Your task to perform on an android device: change notification settings in the gmail app Image 0: 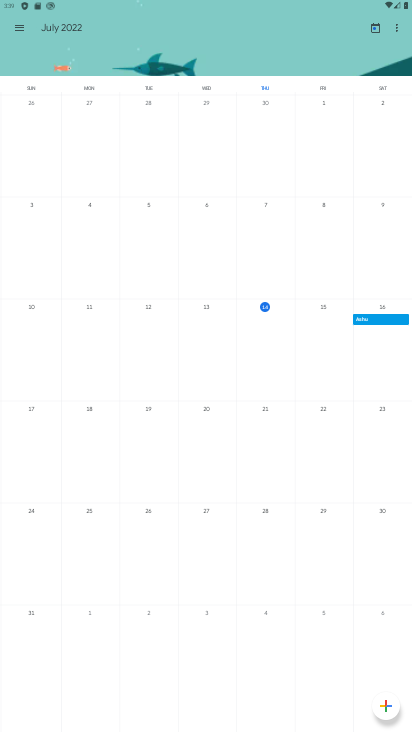
Step 0: press back button
Your task to perform on an android device: change notification settings in the gmail app Image 1: 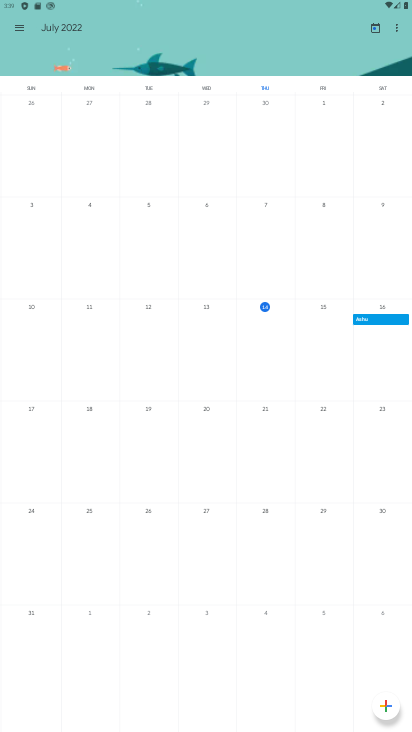
Step 1: press back button
Your task to perform on an android device: change notification settings in the gmail app Image 2: 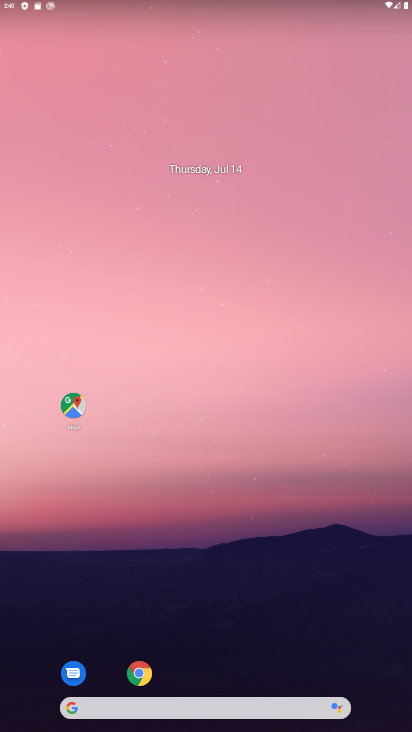
Step 2: drag from (225, 638) to (35, 30)
Your task to perform on an android device: change notification settings in the gmail app Image 3: 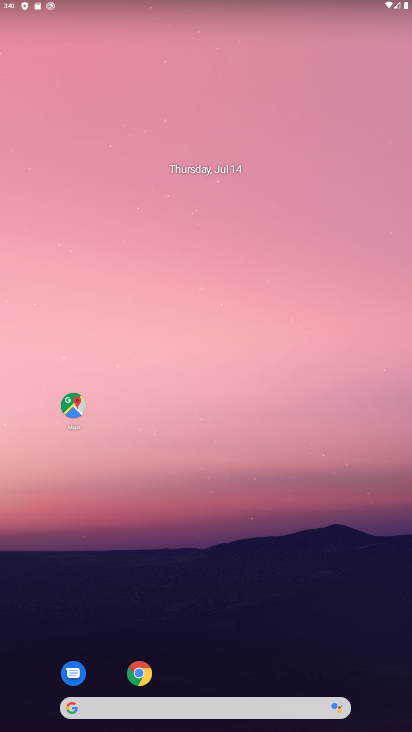
Step 3: drag from (173, 435) to (132, 22)
Your task to perform on an android device: change notification settings in the gmail app Image 4: 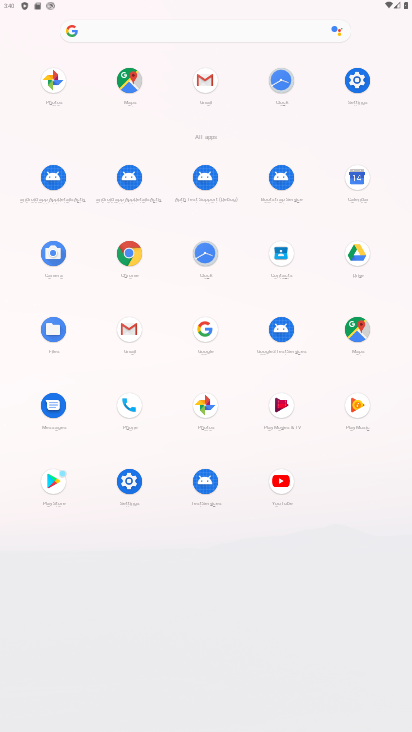
Step 4: click (133, 330)
Your task to perform on an android device: change notification settings in the gmail app Image 5: 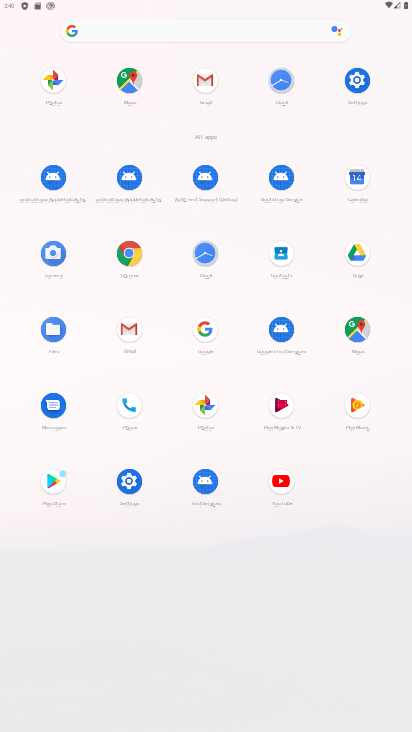
Step 5: click (132, 331)
Your task to perform on an android device: change notification settings in the gmail app Image 6: 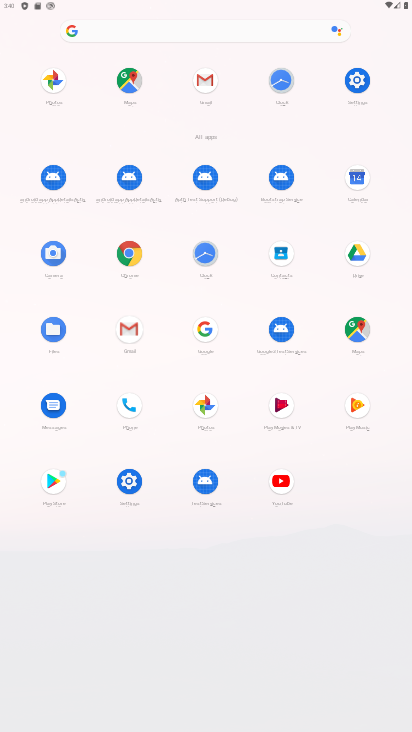
Step 6: click (135, 334)
Your task to perform on an android device: change notification settings in the gmail app Image 7: 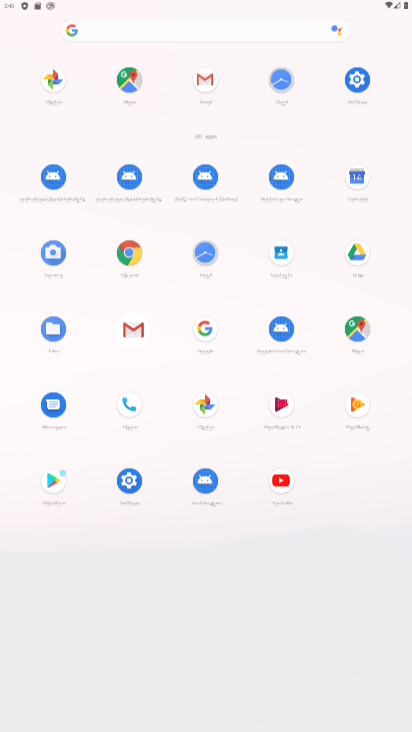
Step 7: click (127, 316)
Your task to perform on an android device: change notification settings in the gmail app Image 8: 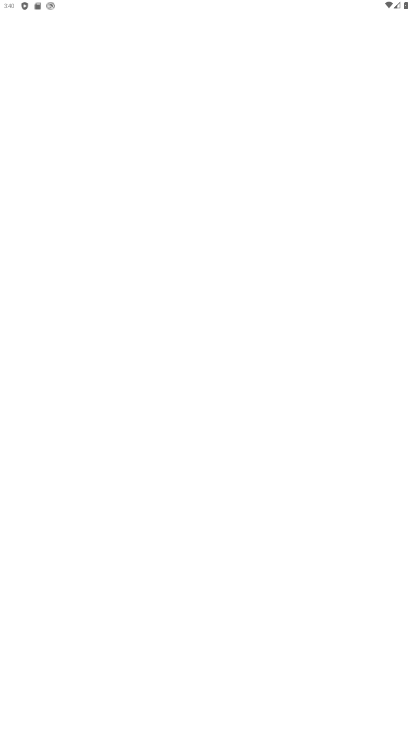
Step 8: click (127, 319)
Your task to perform on an android device: change notification settings in the gmail app Image 9: 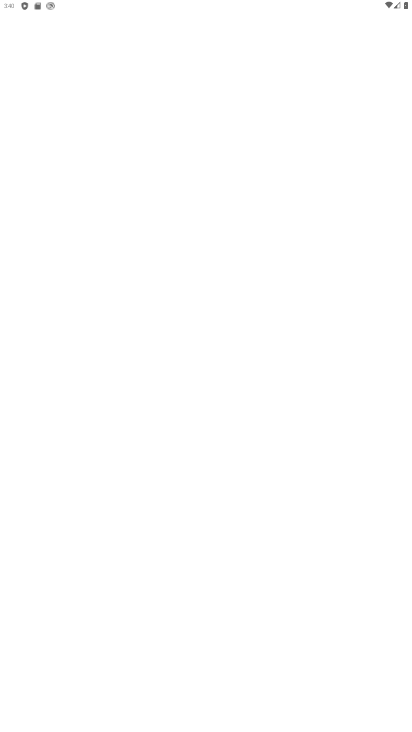
Step 9: click (127, 325)
Your task to perform on an android device: change notification settings in the gmail app Image 10: 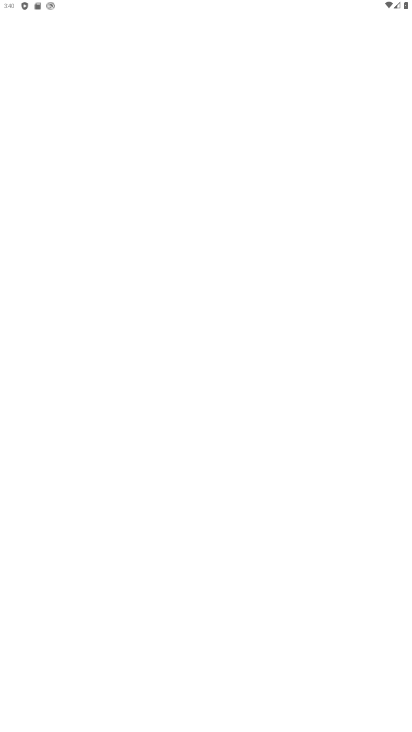
Step 10: click (127, 325)
Your task to perform on an android device: change notification settings in the gmail app Image 11: 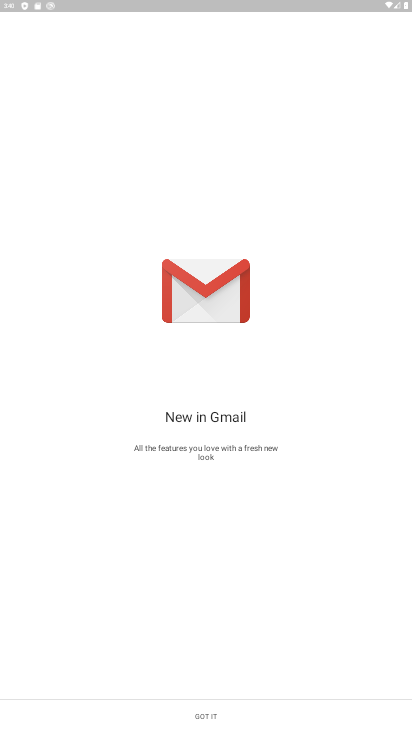
Step 11: click (130, 321)
Your task to perform on an android device: change notification settings in the gmail app Image 12: 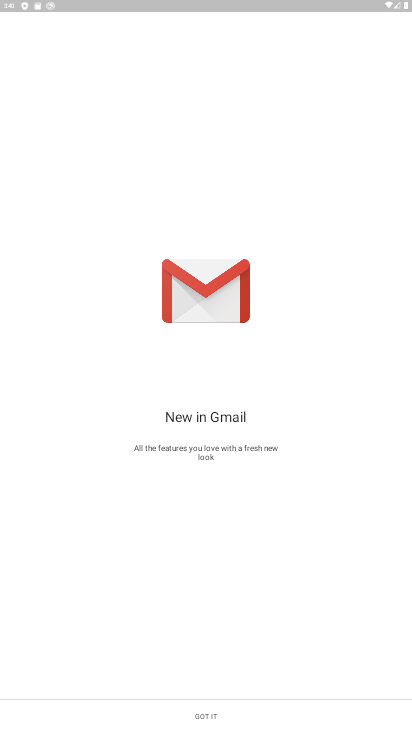
Step 12: click (128, 315)
Your task to perform on an android device: change notification settings in the gmail app Image 13: 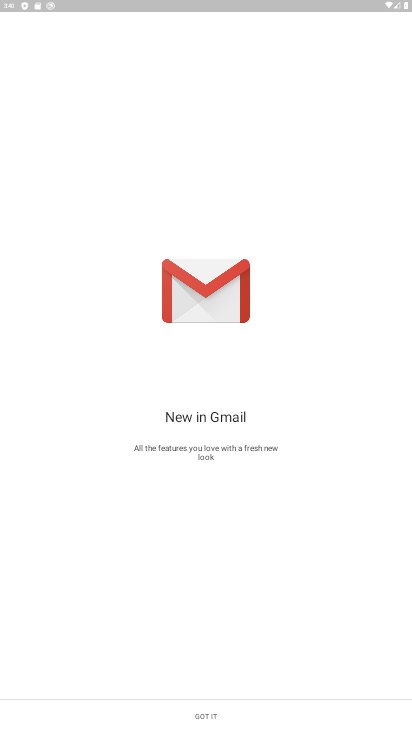
Step 13: click (211, 702)
Your task to perform on an android device: change notification settings in the gmail app Image 14: 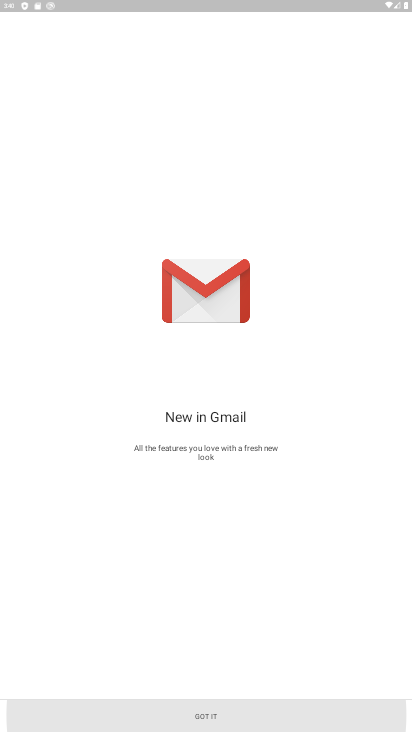
Step 14: click (216, 708)
Your task to perform on an android device: change notification settings in the gmail app Image 15: 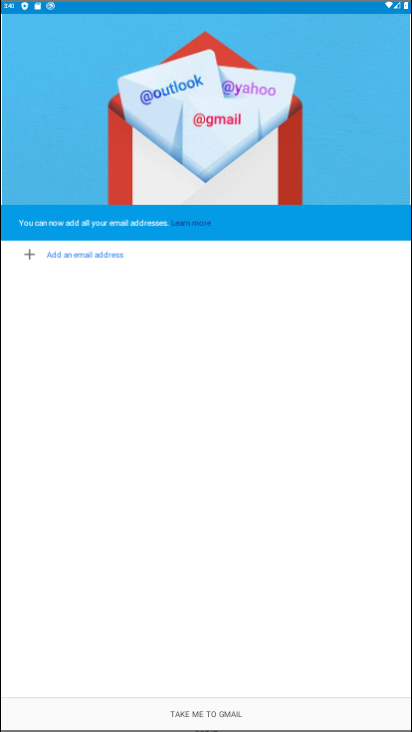
Step 15: click (230, 722)
Your task to perform on an android device: change notification settings in the gmail app Image 16: 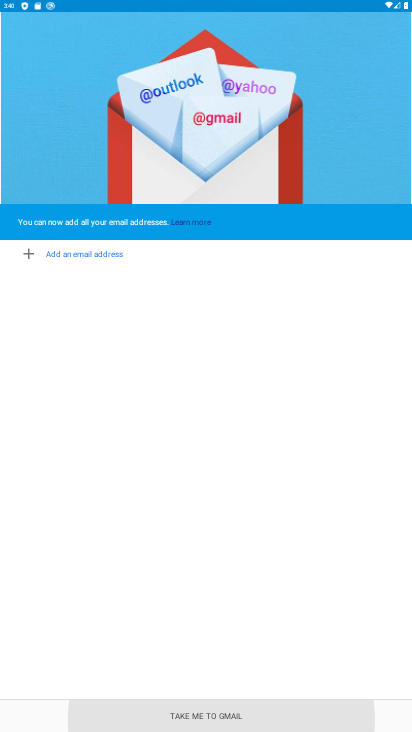
Step 16: click (221, 715)
Your task to perform on an android device: change notification settings in the gmail app Image 17: 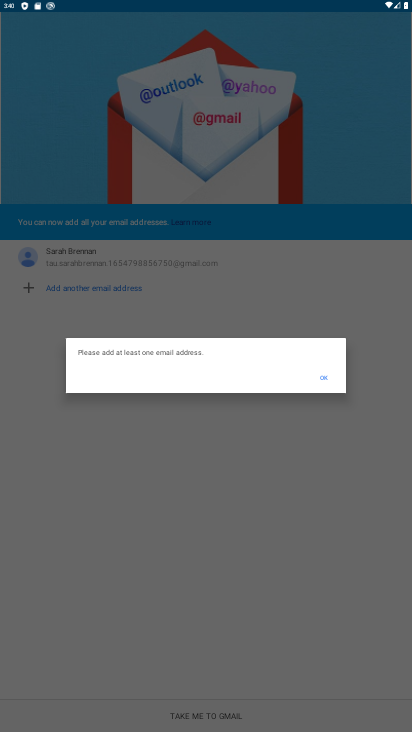
Step 17: click (255, 723)
Your task to perform on an android device: change notification settings in the gmail app Image 18: 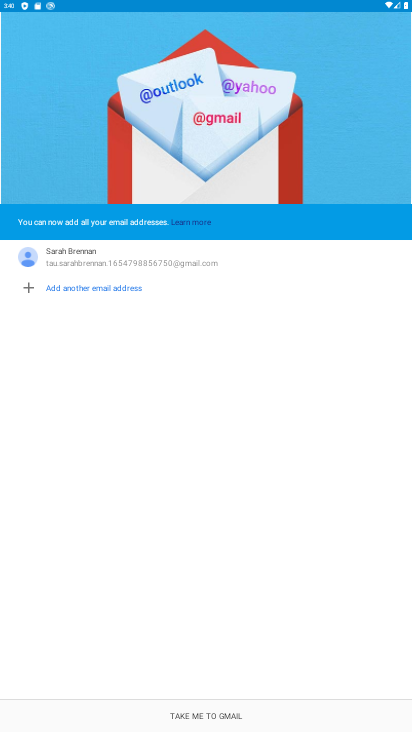
Step 18: click (320, 377)
Your task to perform on an android device: change notification settings in the gmail app Image 19: 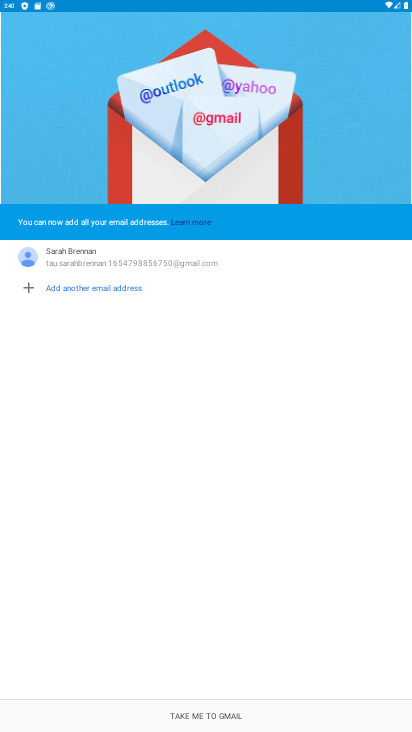
Step 19: task complete